Your task to perform on an android device: all mails in gmail Image 0: 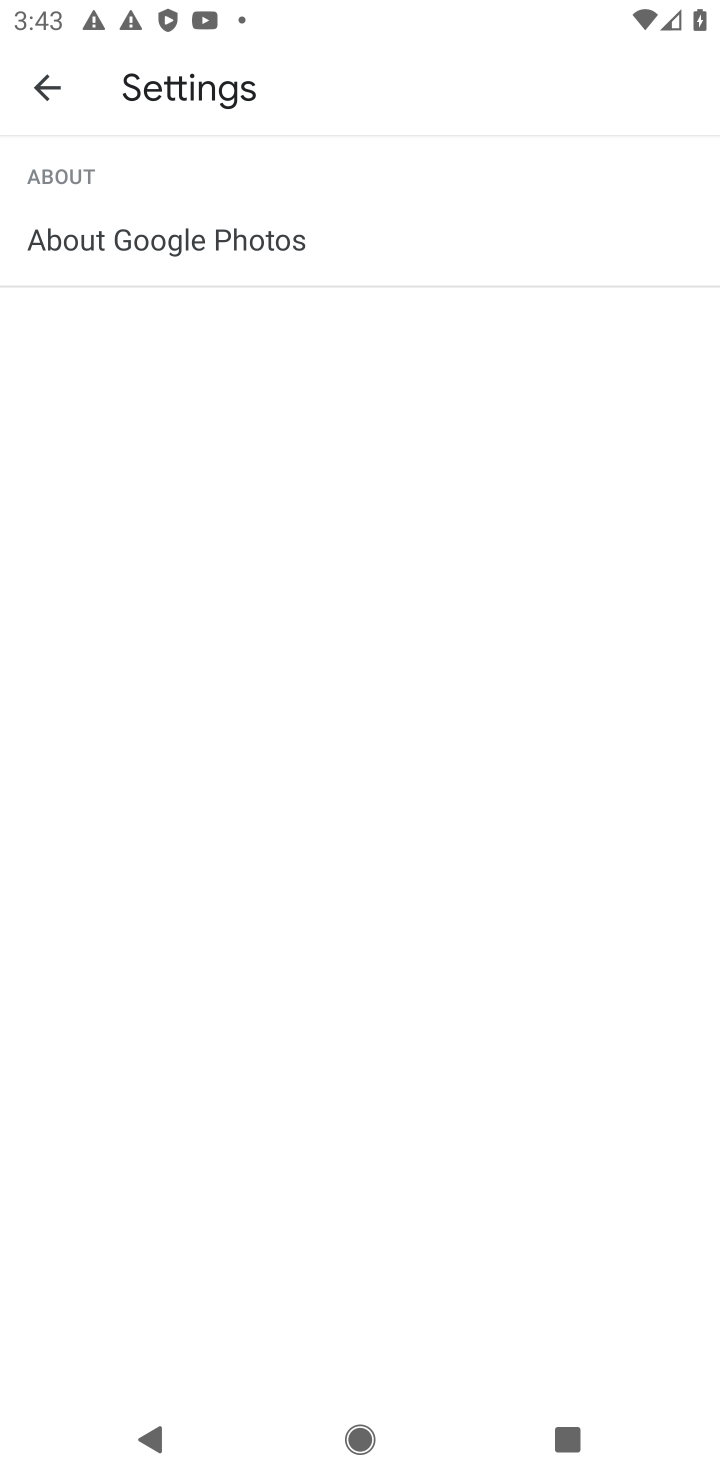
Step 0: press home button
Your task to perform on an android device: all mails in gmail Image 1: 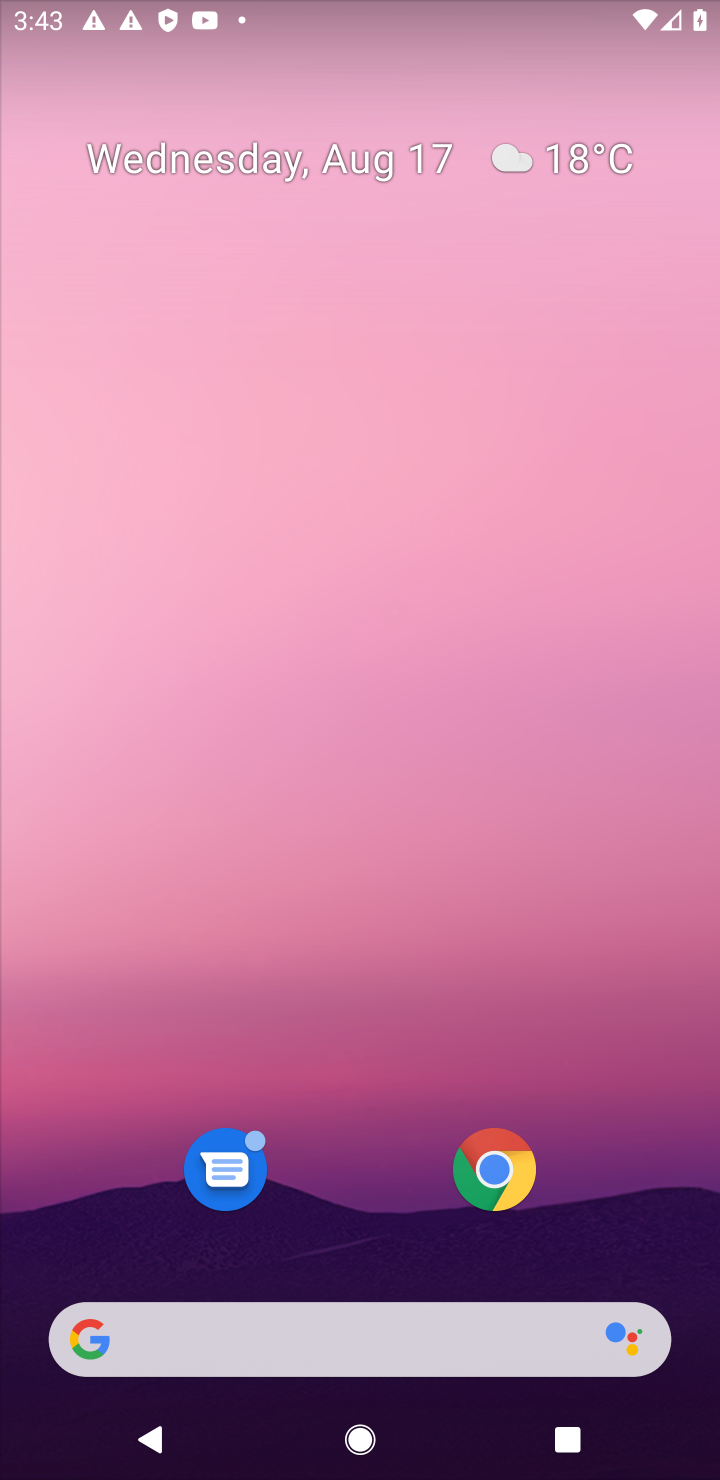
Step 1: drag from (387, 1057) to (365, 215)
Your task to perform on an android device: all mails in gmail Image 2: 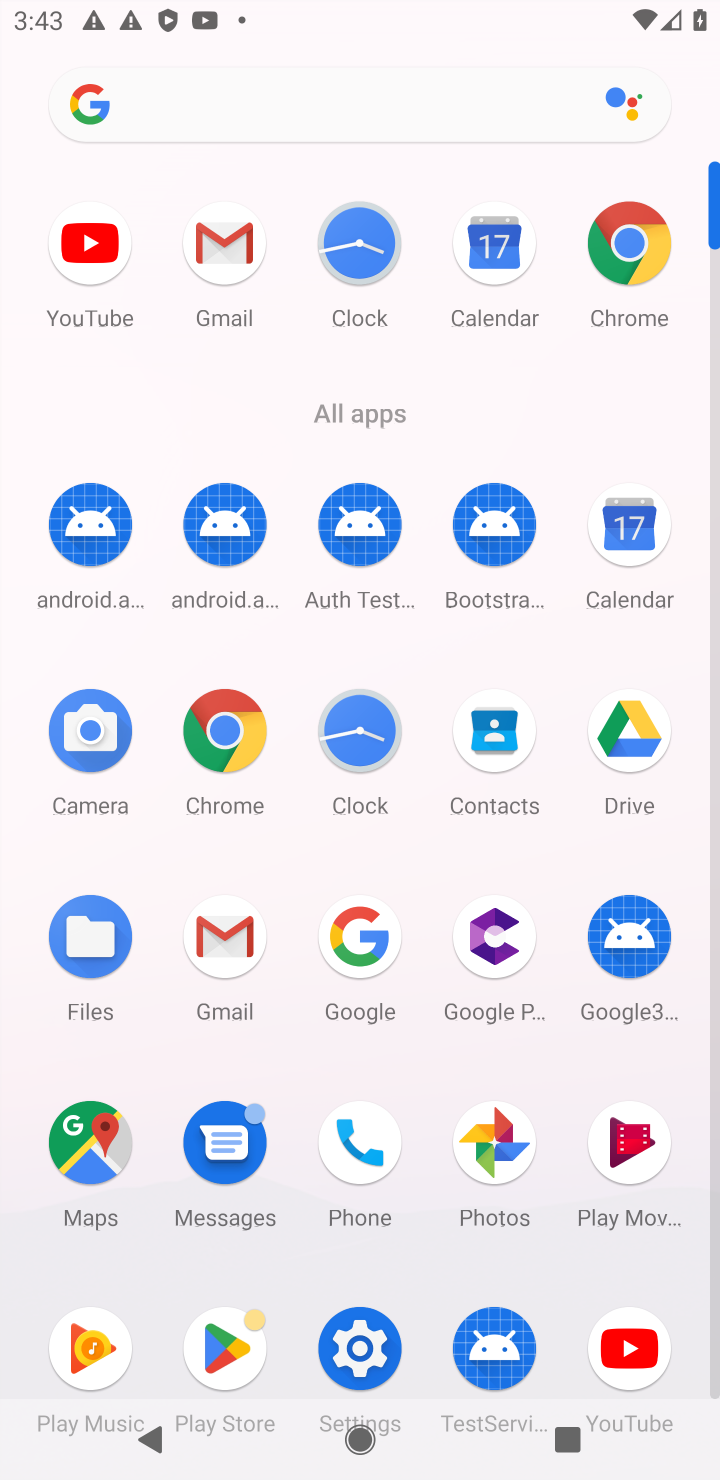
Step 2: click (217, 907)
Your task to perform on an android device: all mails in gmail Image 3: 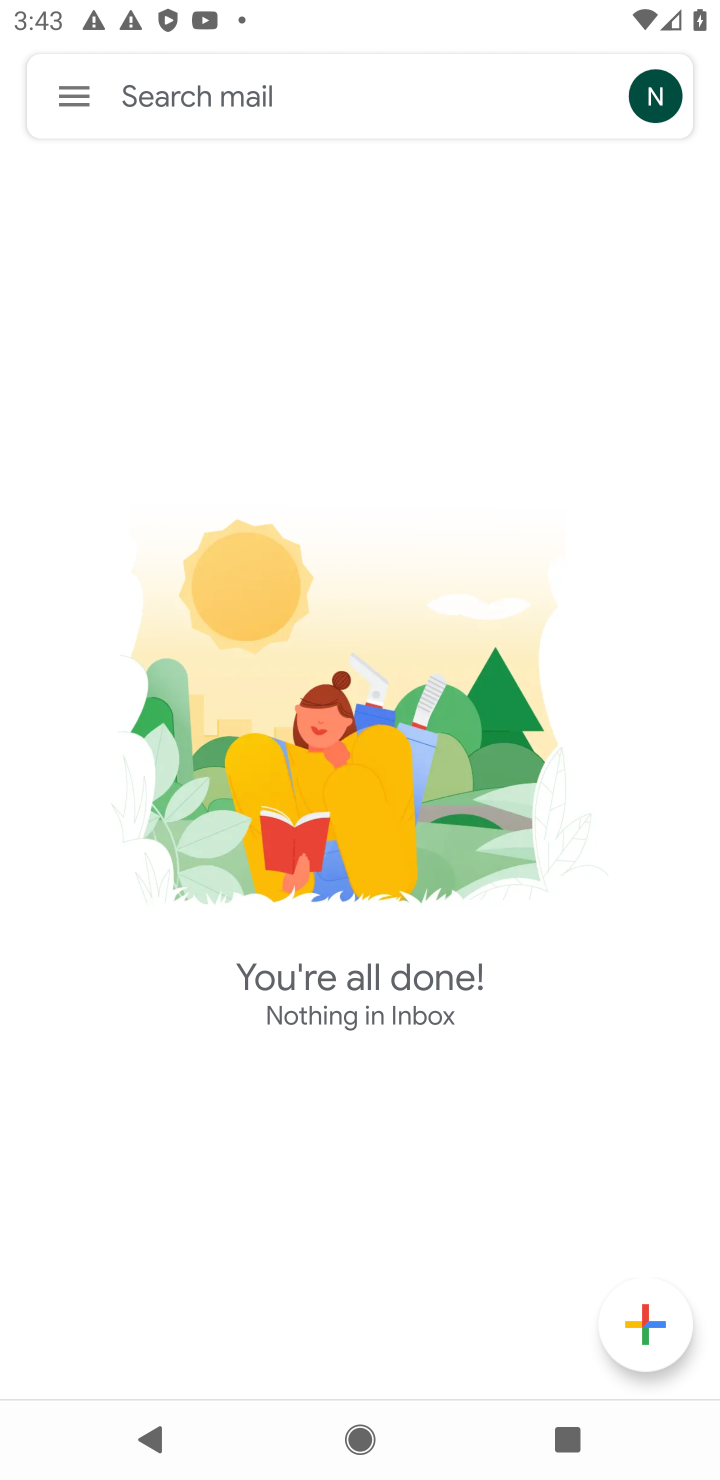
Step 3: click (81, 108)
Your task to perform on an android device: all mails in gmail Image 4: 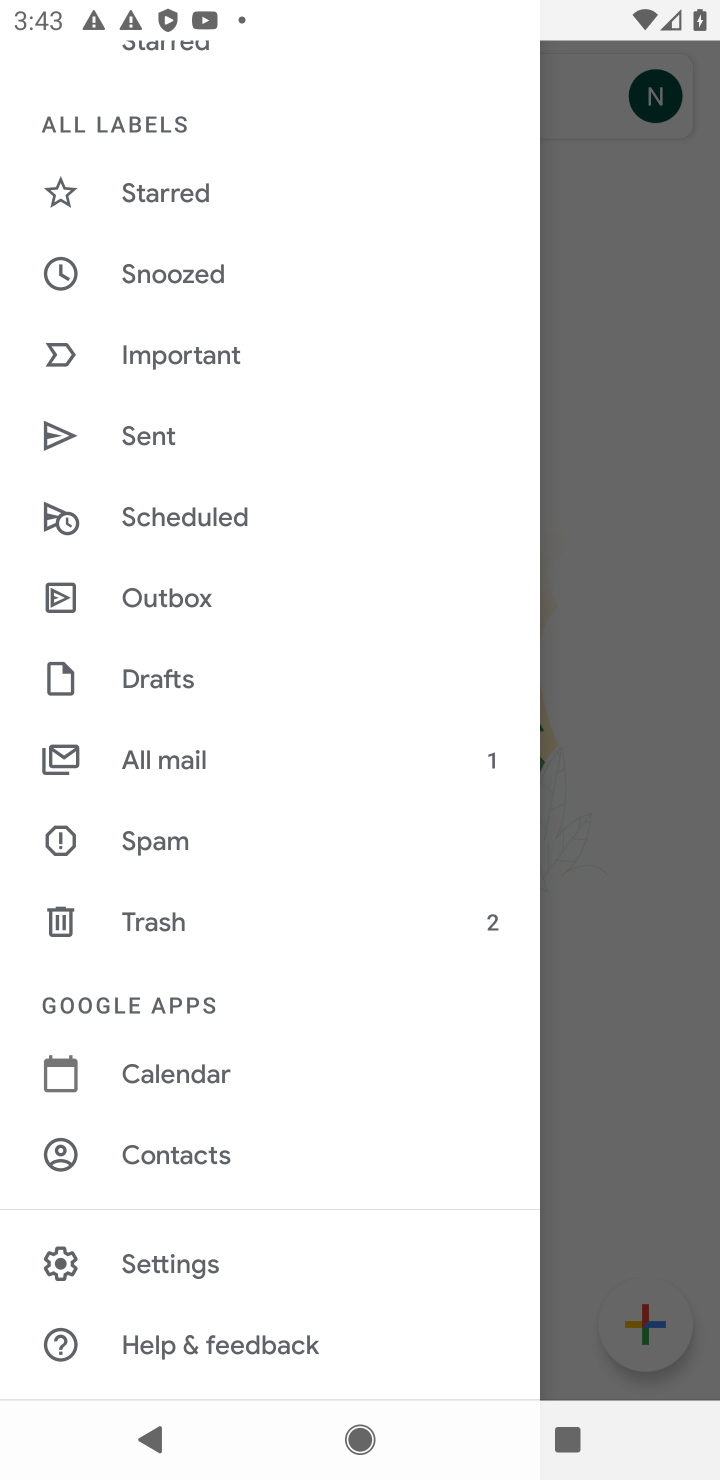
Step 4: click (147, 763)
Your task to perform on an android device: all mails in gmail Image 5: 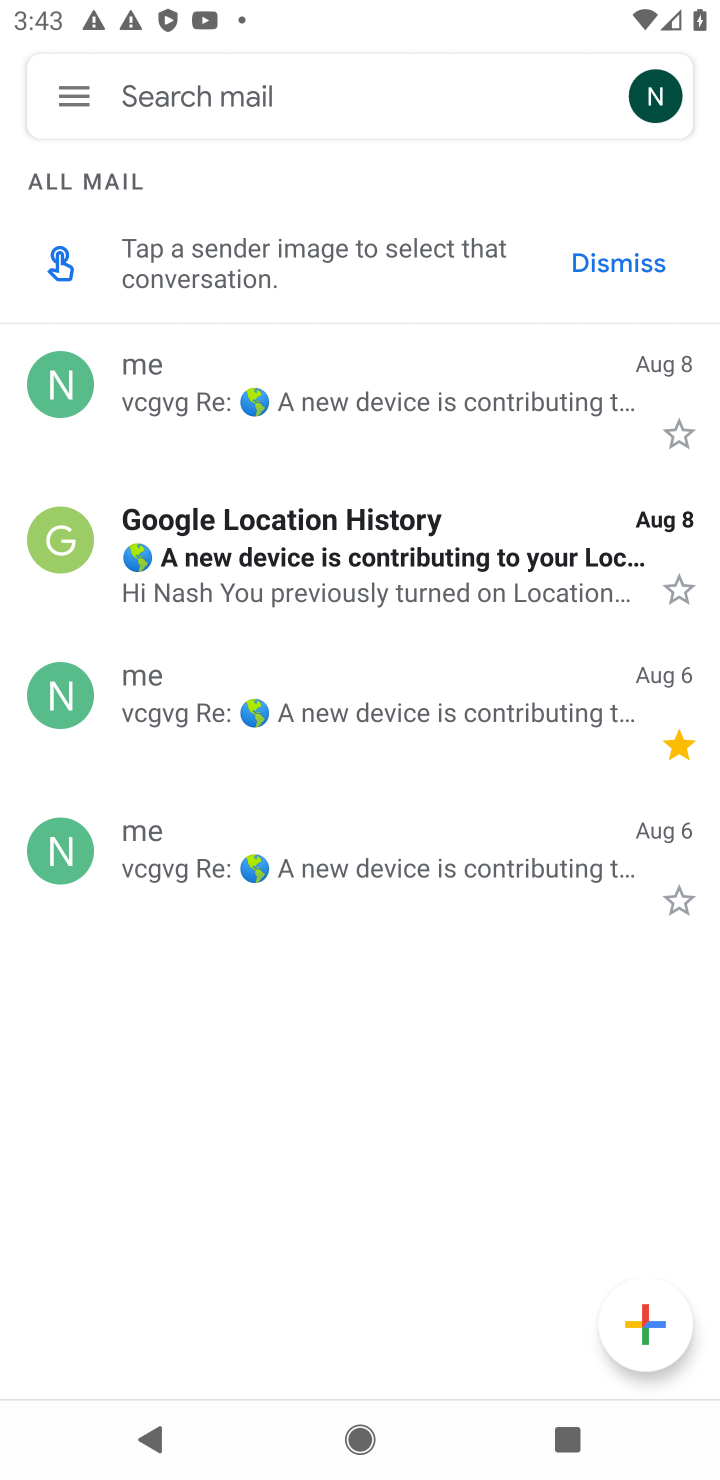
Step 5: task complete